Your task to perform on an android device: see tabs open on other devices in the chrome app Image 0: 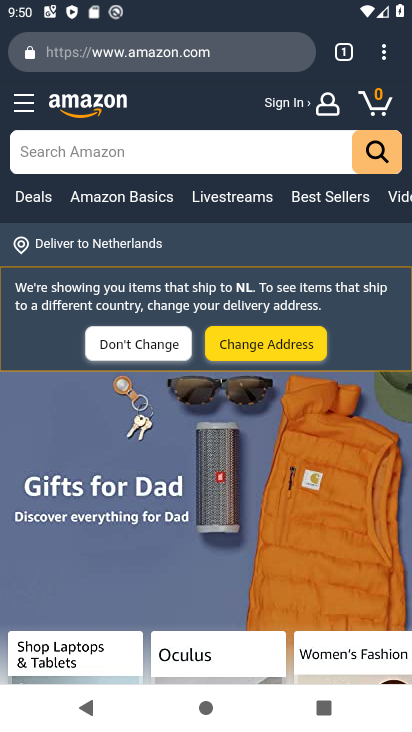
Step 0: click (346, 56)
Your task to perform on an android device: see tabs open on other devices in the chrome app Image 1: 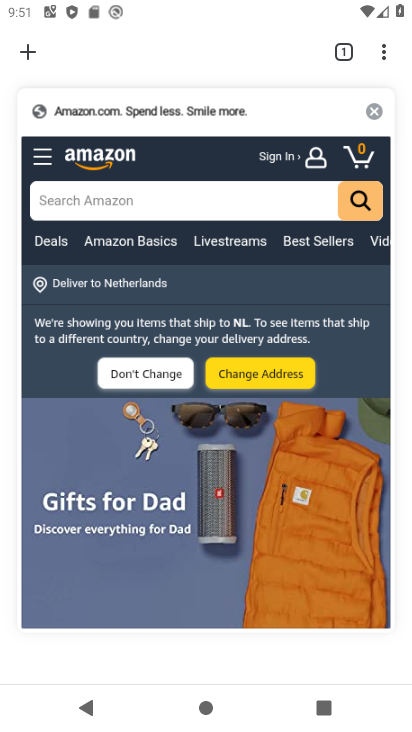
Step 1: task complete